Your task to perform on an android device: Open accessibility settings Image 0: 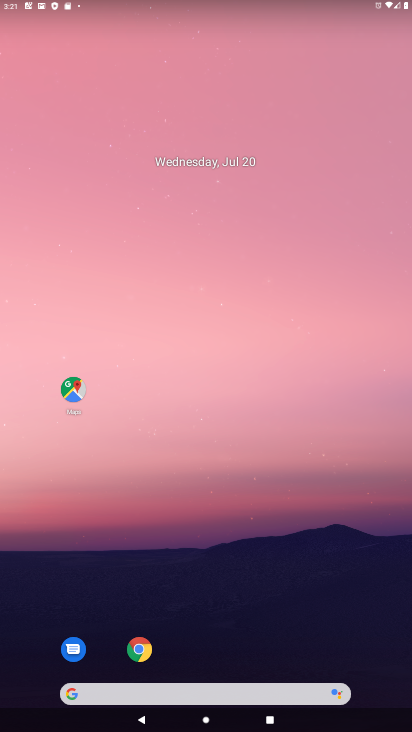
Step 0: drag from (231, 690) to (276, 15)
Your task to perform on an android device: Open accessibility settings Image 1: 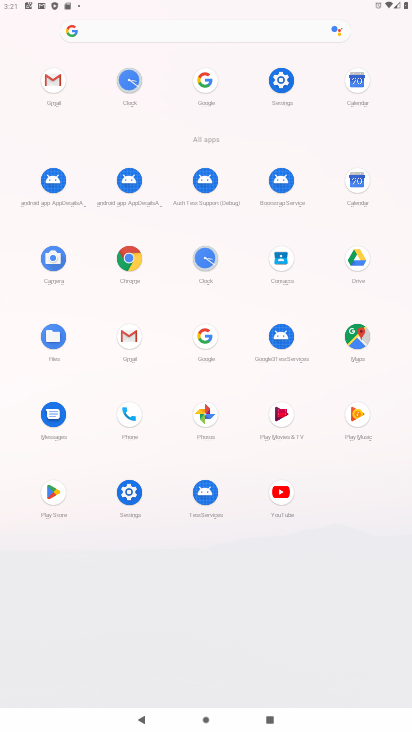
Step 1: click (282, 80)
Your task to perform on an android device: Open accessibility settings Image 2: 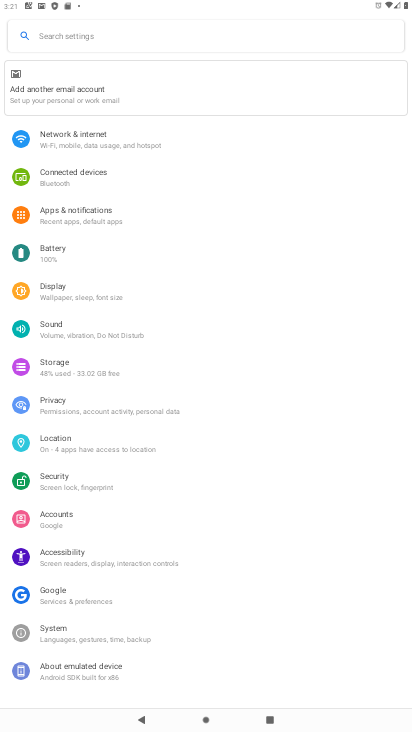
Step 2: click (81, 555)
Your task to perform on an android device: Open accessibility settings Image 3: 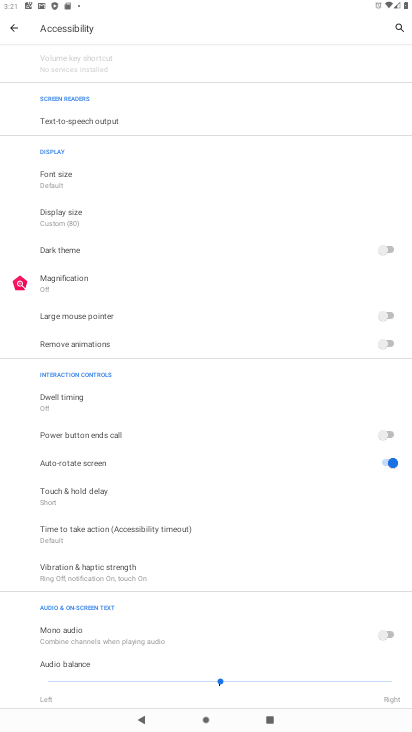
Step 3: task complete